Your task to perform on an android device: turn vacation reply on in the gmail app Image 0: 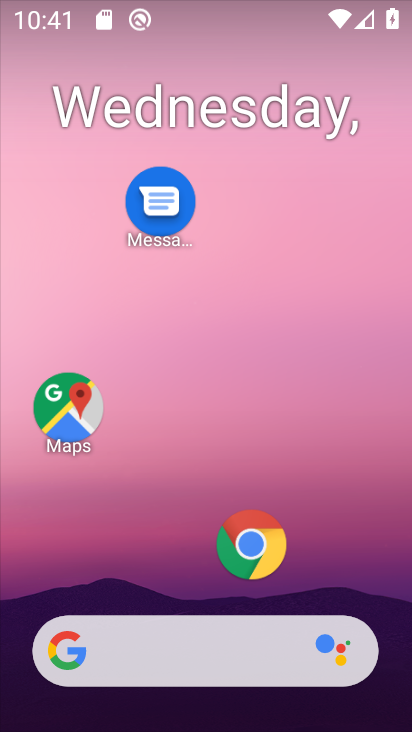
Step 0: drag from (177, 571) to (230, 232)
Your task to perform on an android device: turn vacation reply on in the gmail app Image 1: 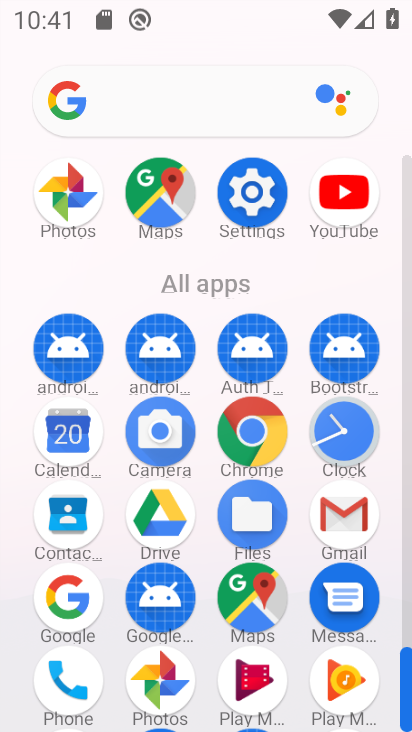
Step 1: click (336, 523)
Your task to perform on an android device: turn vacation reply on in the gmail app Image 2: 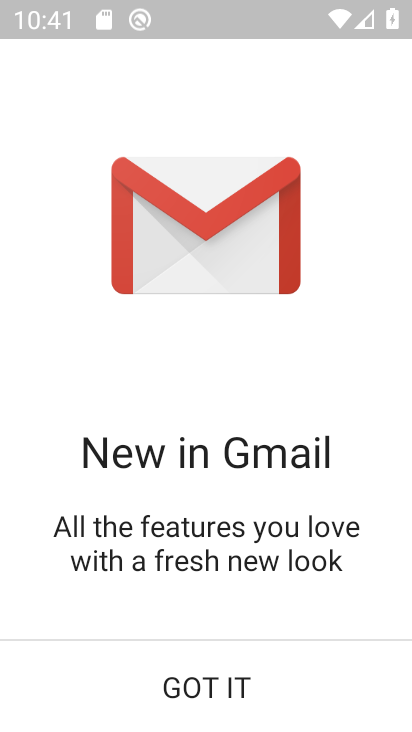
Step 2: click (238, 670)
Your task to perform on an android device: turn vacation reply on in the gmail app Image 3: 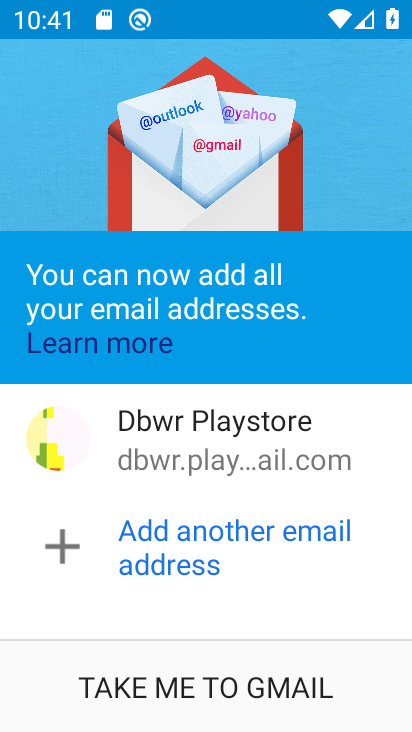
Step 3: click (273, 673)
Your task to perform on an android device: turn vacation reply on in the gmail app Image 4: 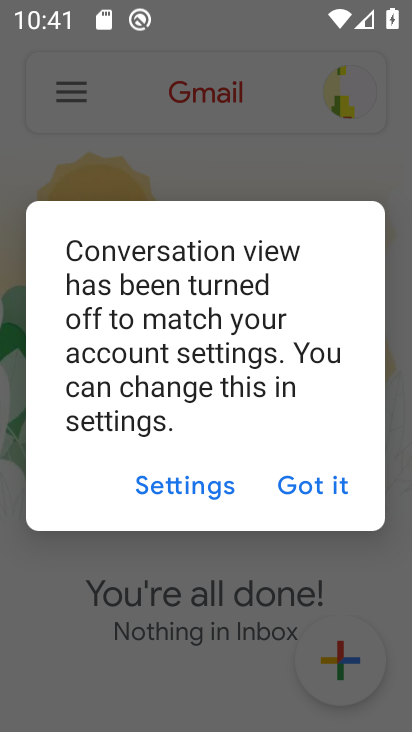
Step 4: click (307, 495)
Your task to perform on an android device: turn vacation reply on in the gmail app Image 5: 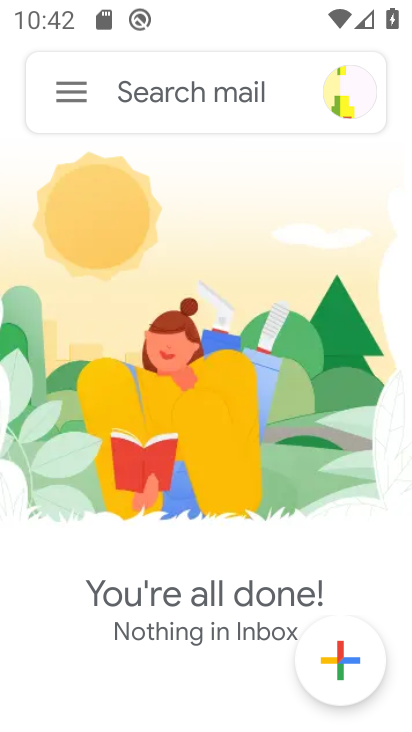
Step 5: click (78, 99)
Your task to perform on an android device: turn vacation reply on in the gmail app Image 6: 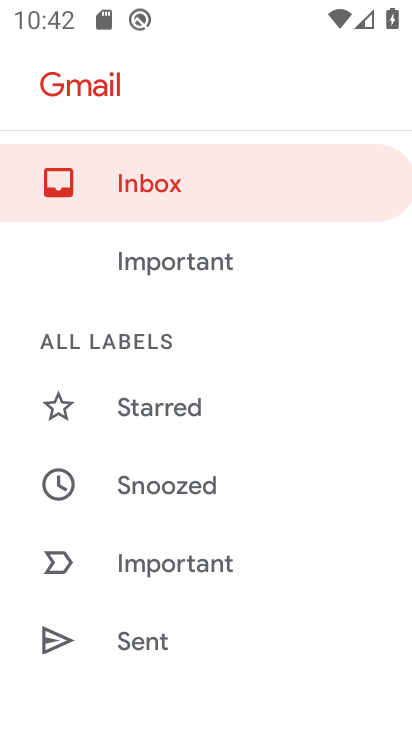
Step 6: drag from (208, 558) to (237, 192)
Your task to perform on an android device: turn vacation reply on in the gmail app Image 7: 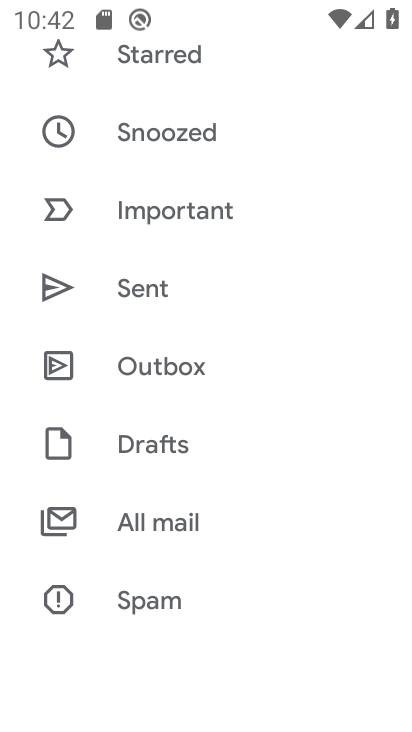
Step 7: drag from (249, 509) to (278, 161)
Your task to perform on an android device: turn vacation reply on in the gmail app Image 8: 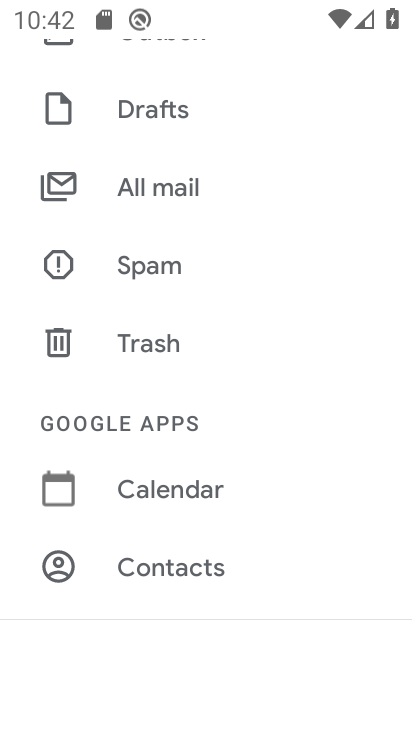
Step 8: drag from (237, 557) to (277, 230)
Your task to perform on an android device: turn vacation reply on in the gmail app Image 9: 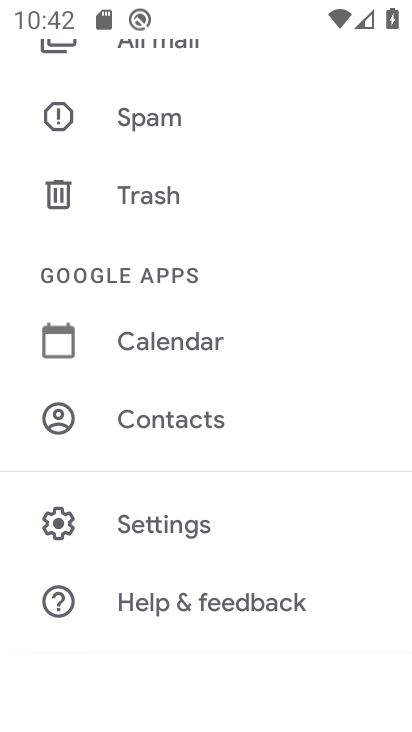
Step 9: click (202, 523)
Your task to perform on an android device: turn vacation reply on in the gmail app Image 10: 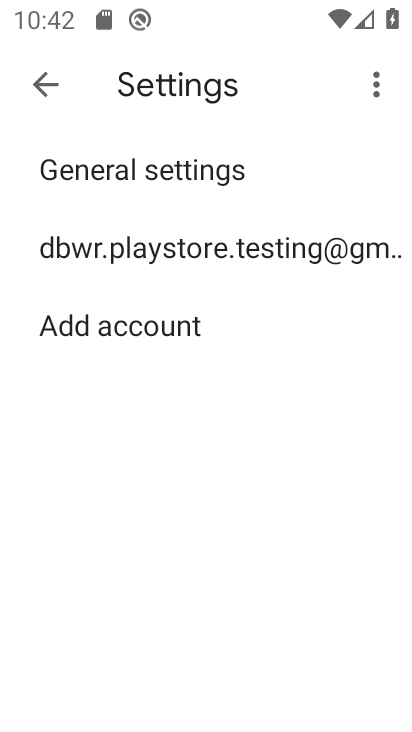
Step 10: click (267, 242)
Your task to perform on an android device: turn vacation reply on in the gmail app Image 11: 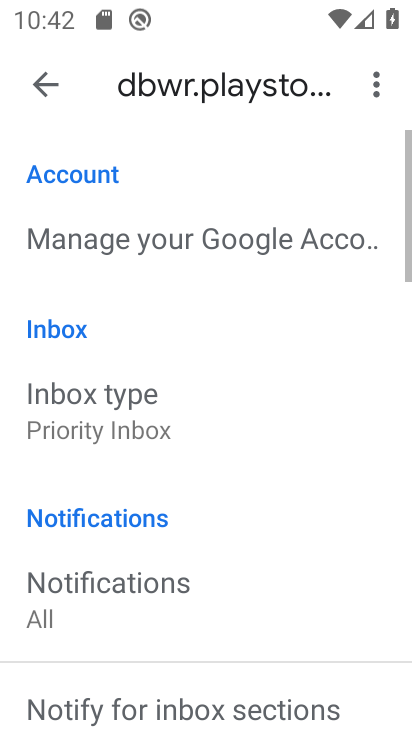
Step 11: drag from (256, 539) to (308, 213)
Your task to perform on an android device: turn vacation reply on in the gmail app Image 12: 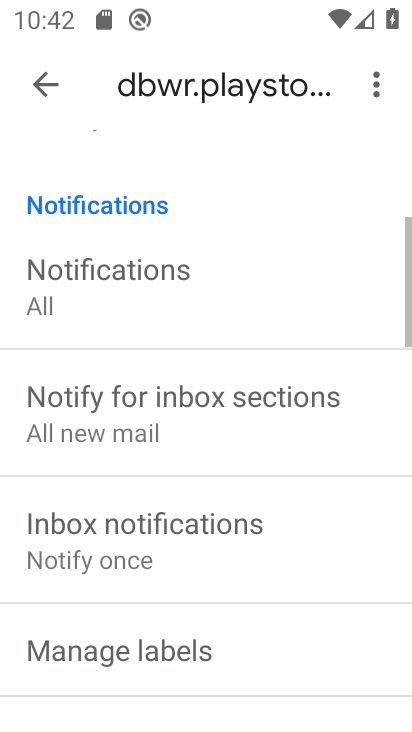
Step 12: drag from (244, 564) to (277, 243)
Your task to perform on an android device: turn vacation reply on in the gmail app Image 13: 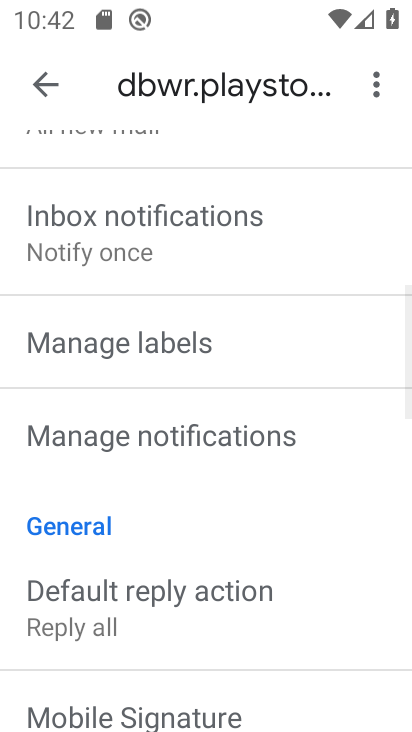
Step 13: drag from (258, 571) to (289, 298)
Your task to perform on an android device: turn vacation reply on in the gmail app Image 14: 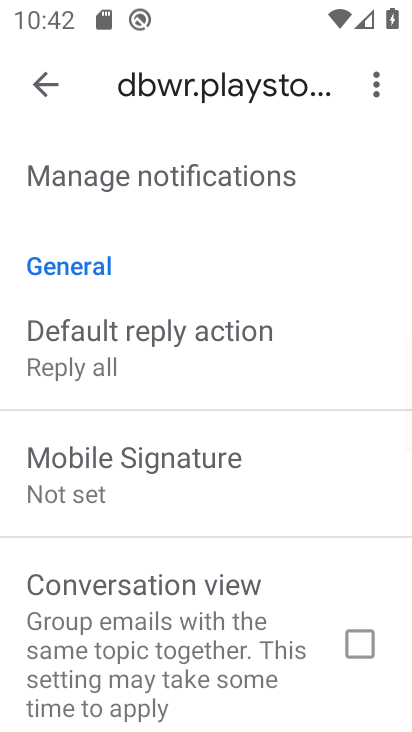
Step 14: drag from (258, 587) to (300, 292)
Your task to perform on an android device: turn vacation reply on in the gmail app Image 15: 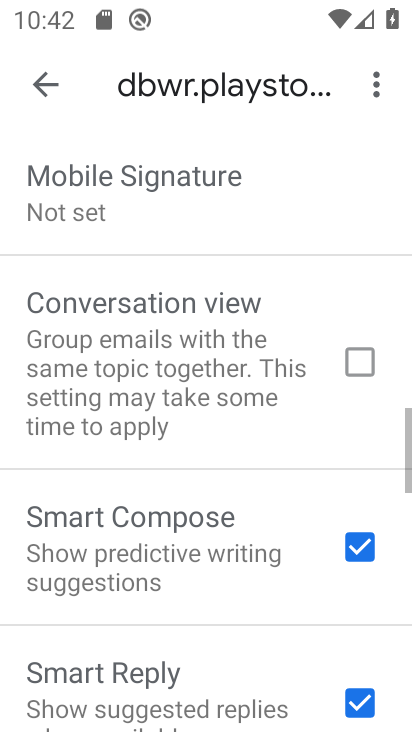
Step 15: drag from (255, 665) to (306, 330)
Your task to perform on an android device: turn vacation reply on in the gmail app Image 16: 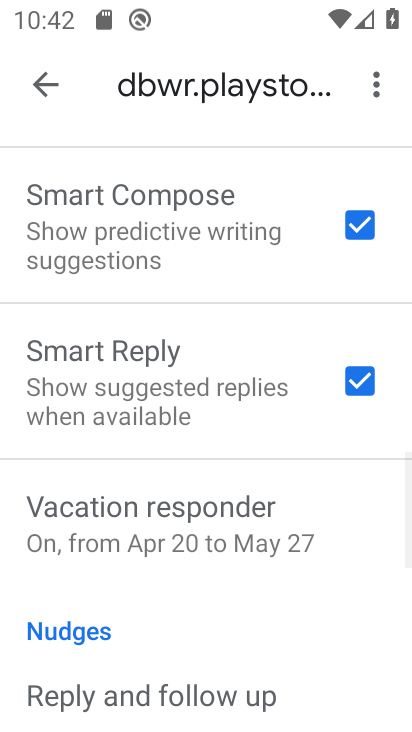
Step 16: click (203, 539)
Your task to perform on an android device: turn vacation reply on in the gmail app Image 17: 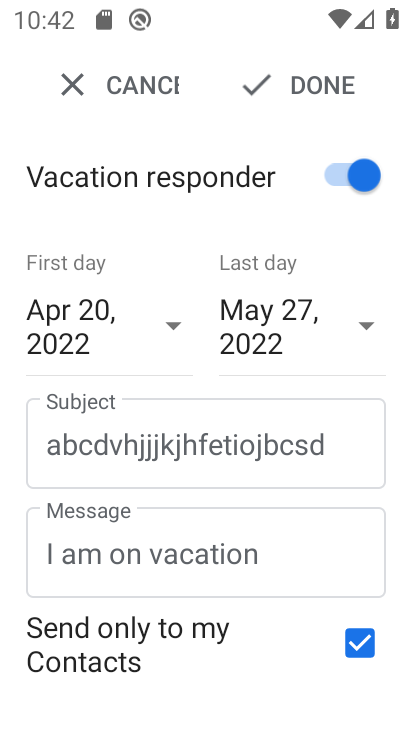
Step 17: task complete